Your task to perform on an android device: Open battery settings Image 0: 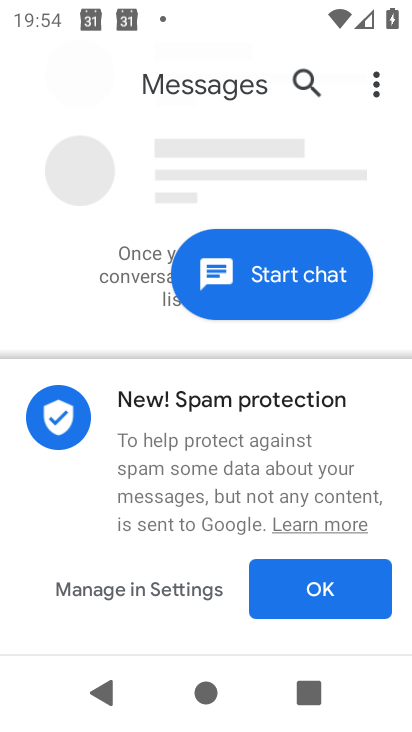
Step 0: press home button
Your task to perform on an android device: Open battery settings Image 1: 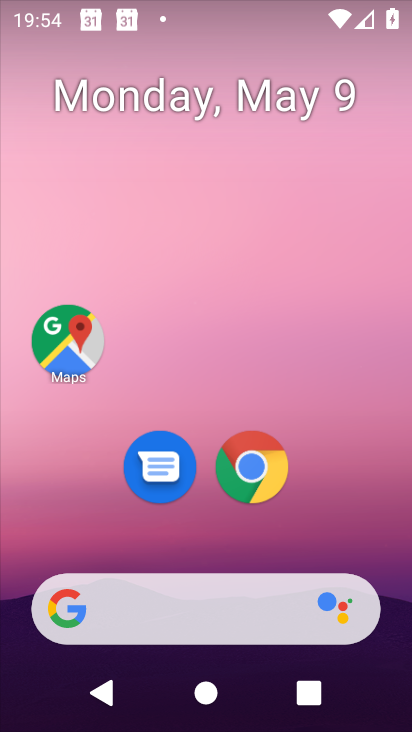
Step 1: drag from (342, 515) to (322, 139)
Your task to perform on an android device: Open battery settings Image 2: 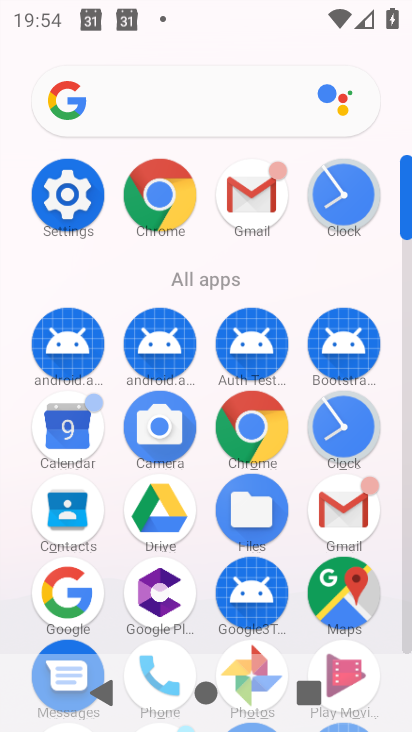
Step 2: click (89, 201)
Your task to perform on an android device: Open battery settings Image 3: 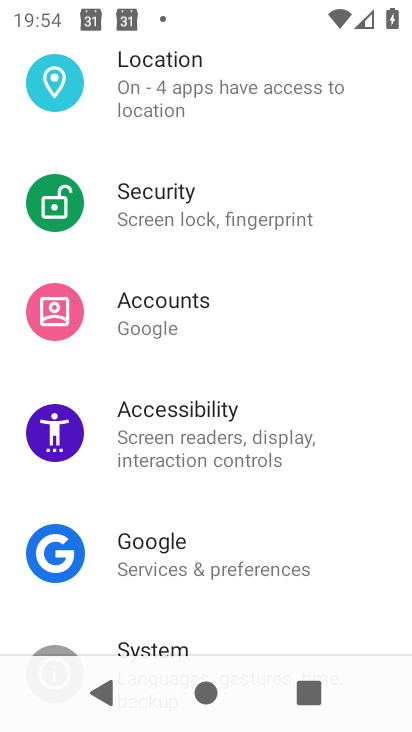
Step 3: drag from (248, 472) to (287, 157)
Your task to perform on an android device: Open battery settings Image 4: 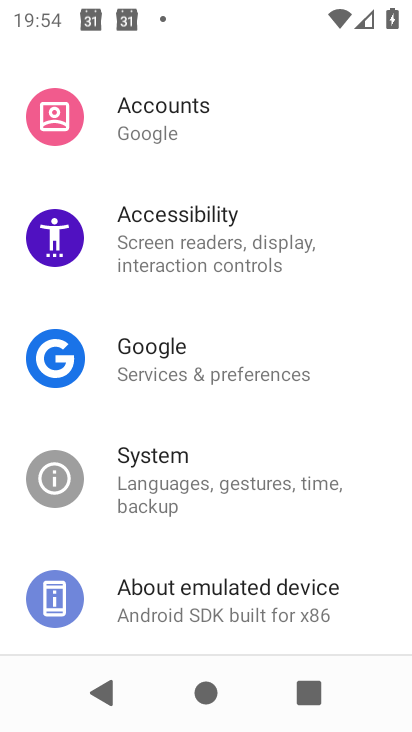
Step 4: drag from (229, 511) to (198, 148)
Your task to perform on an android device: Open battery settings Image 5: 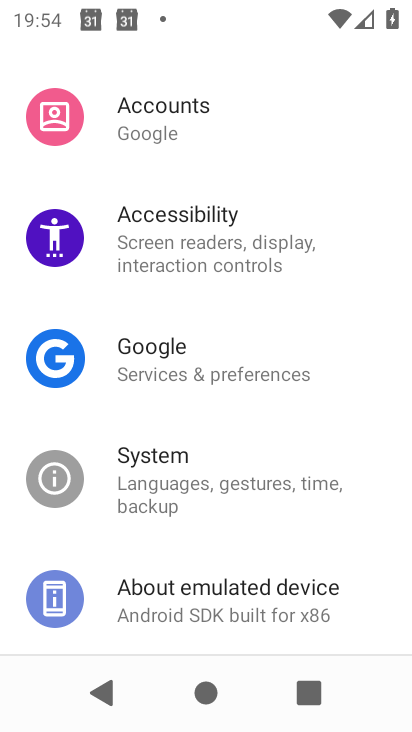
Step 5: drag from (198, 147) to (246, 624)
Your task to perform on an android device: Open battery settings Image 6: 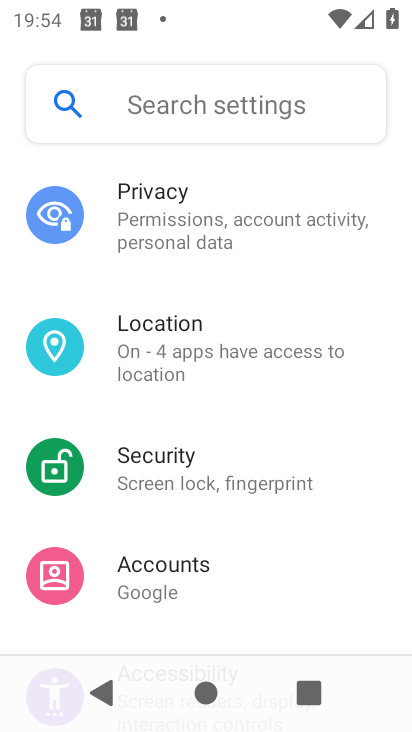
Step 6: drag from (217, 285) to (261, 634)
Your task to perform on an android device: Open battery settings Image 7: 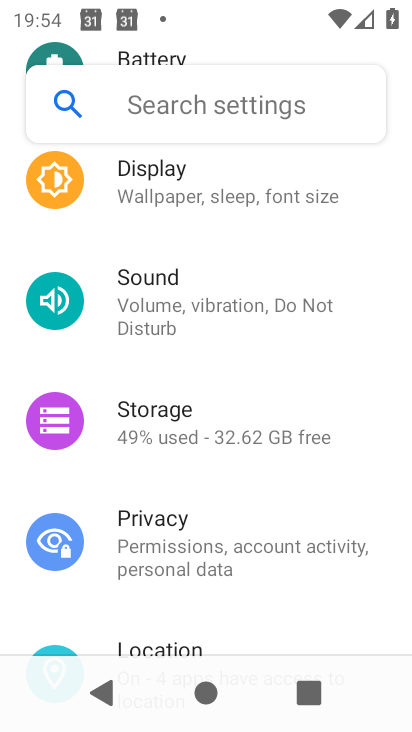
Step 7: drag from (190, 233) to (304, 613)
Your task to perform on an android device: Open battery settings Image 8: 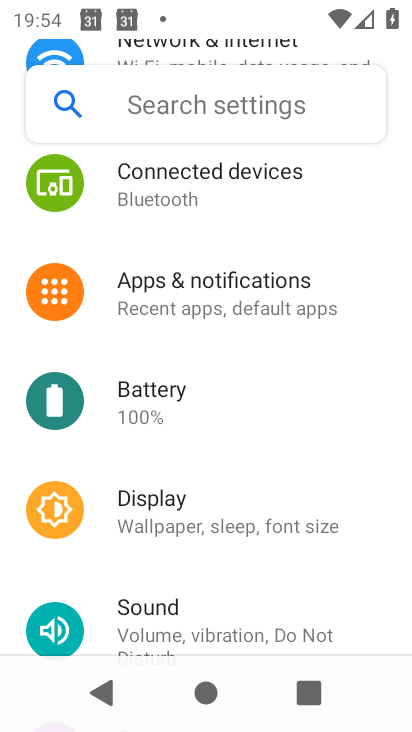
Step 8: click (173, 395)
Your task to perform on an android device: Open battery settings Image 9: 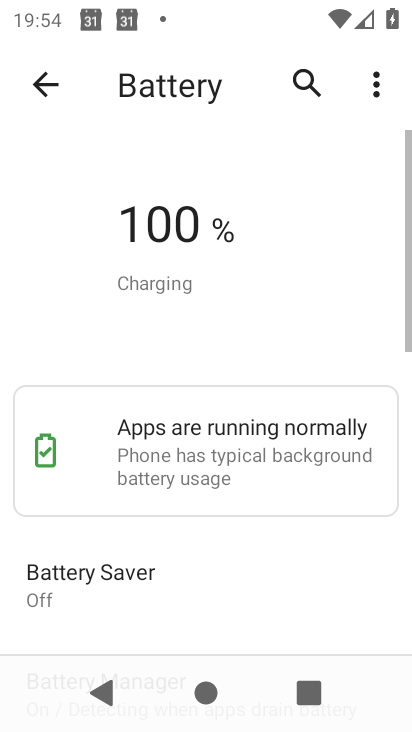
Step 9: task complete